Your task to perform on an android device: Go to internet settings Image 0: 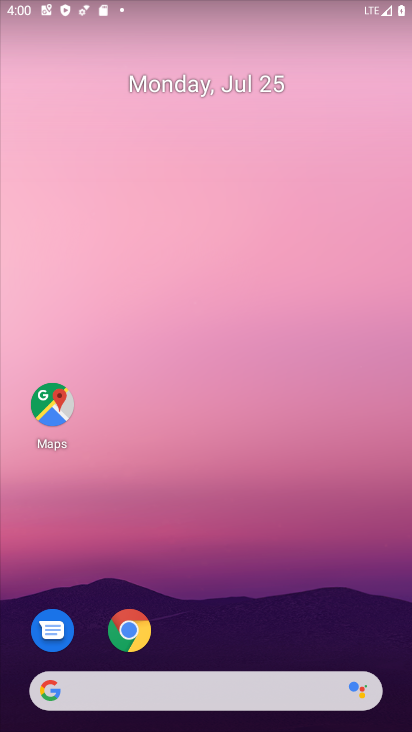
Step 0: drag from (250, 631) to (233, 192)
Your task to perform on an android device: Go to internet settings Image 1: 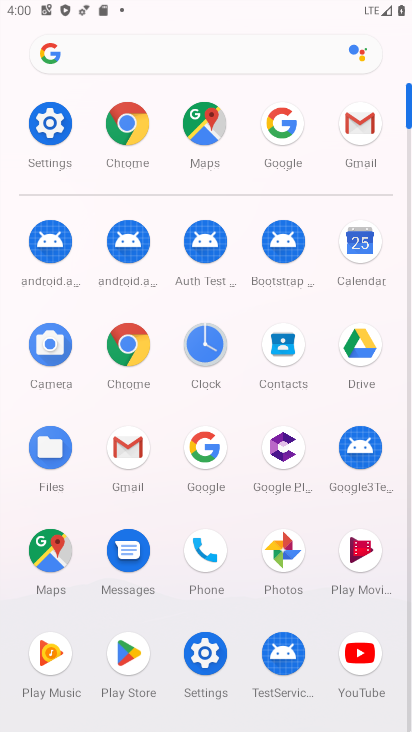
Step 1: click (46, 112)
Your task to perform on an android device: Go to internet settings Image 2: 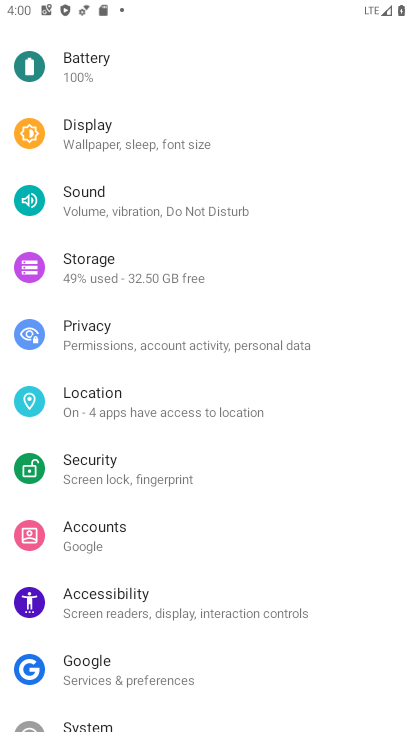
Step 2: drag from (236, 149) to (290, 426)
Your task to perform on an android device: Go to internet settings Image 3: 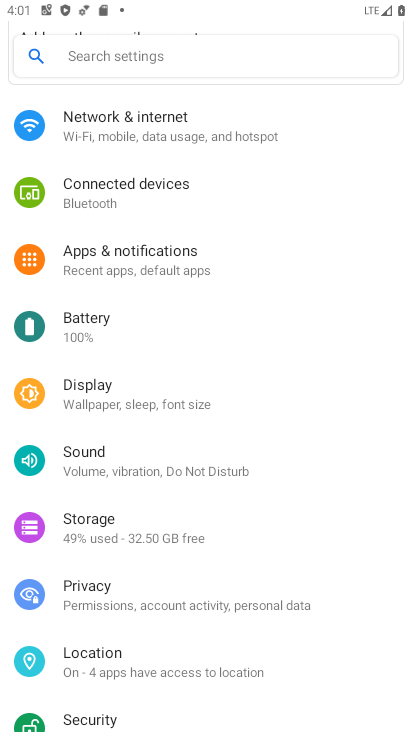
Step 3: click (236, 130)
Your task to perform on an android device: Go to internet settings Image 4: 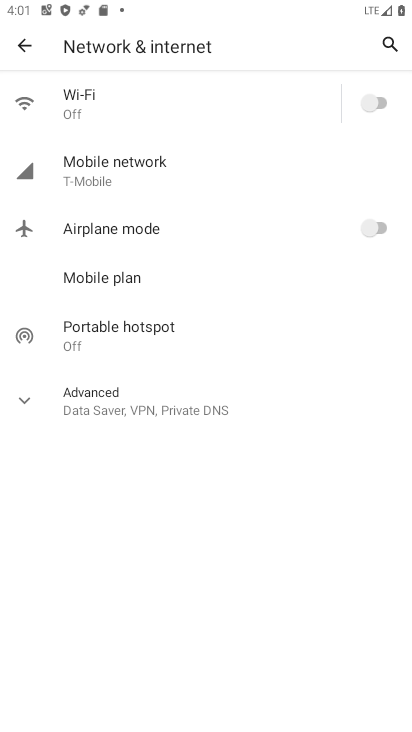
Step 4: task complete